Your task to perform on an android device: Open Chrome and go to settings Image 0: 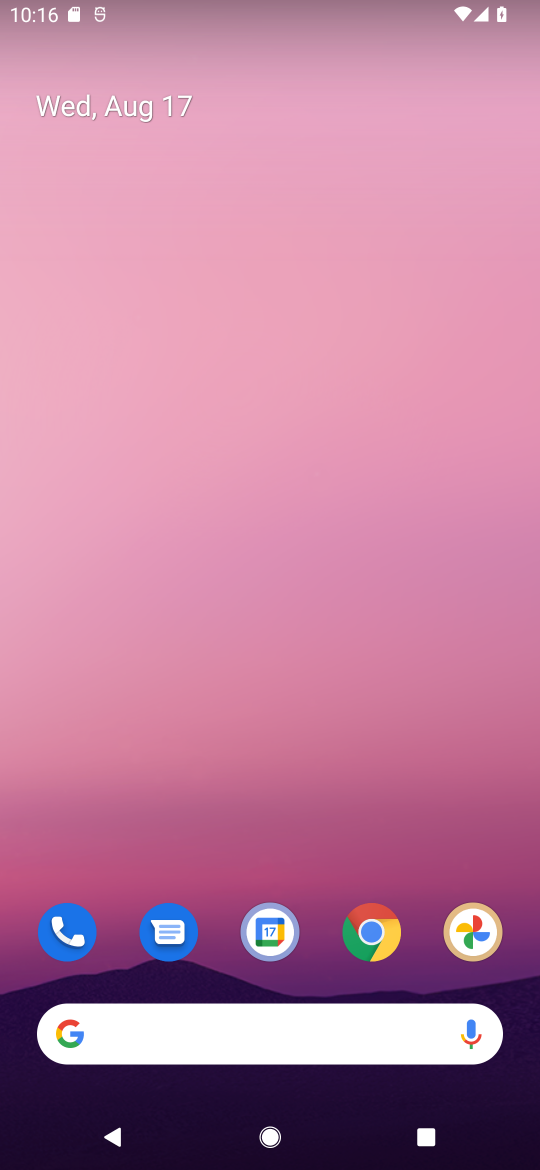
Step 0: click (379, 935)
Your task to perform on an android device: Open Chrome and go to settings Image 1: 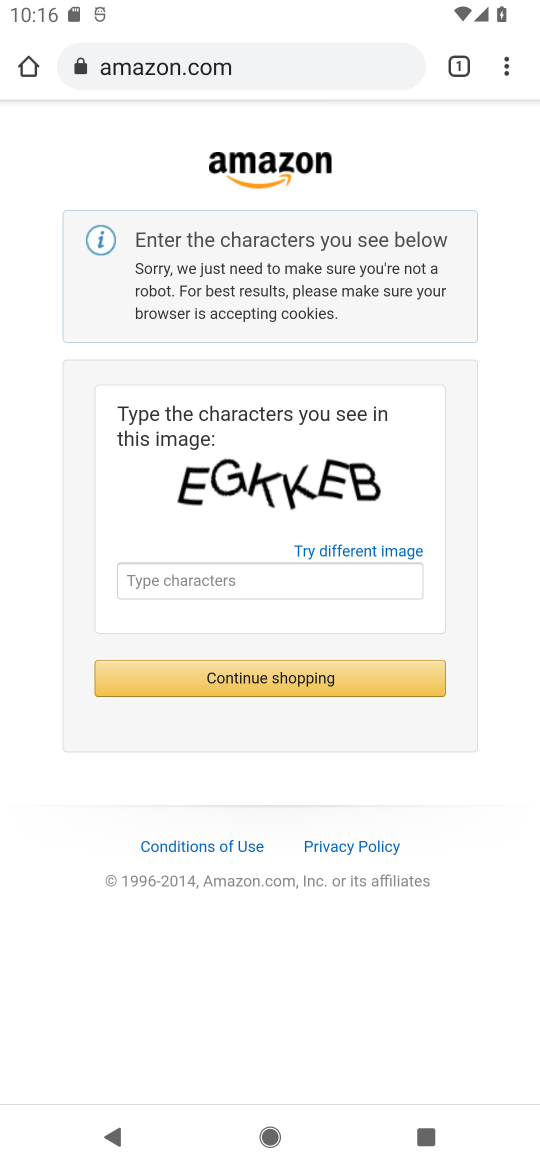
Step 1: click (506, 70)
Your task to perform on an android device: Open Chrome and go to settings Image 2: 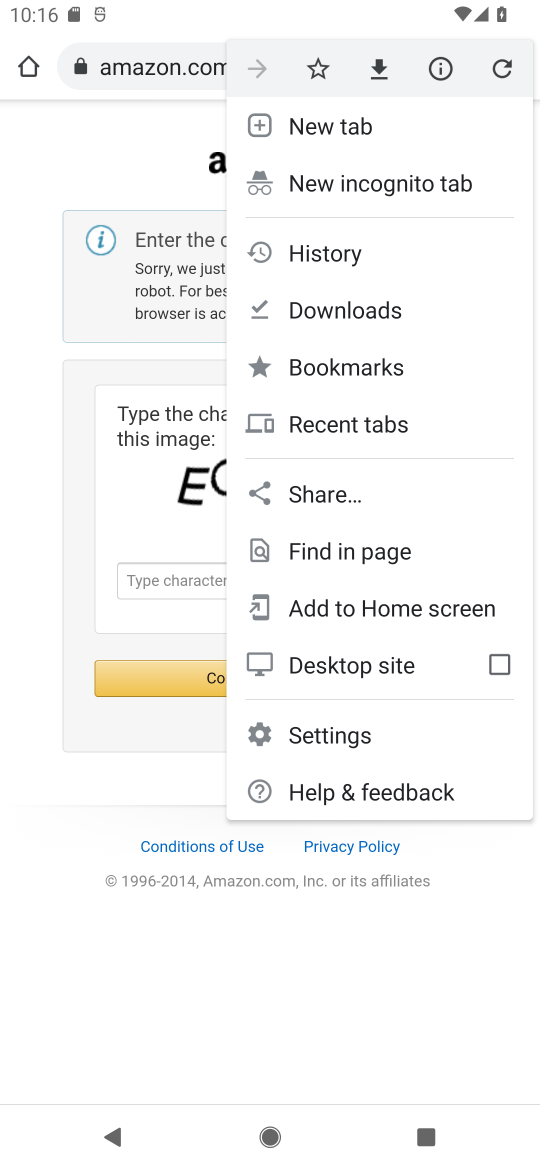
Step 2: click (313, 730)
Your task to perform on an android device: Open Chrome and go to settings Image 3: 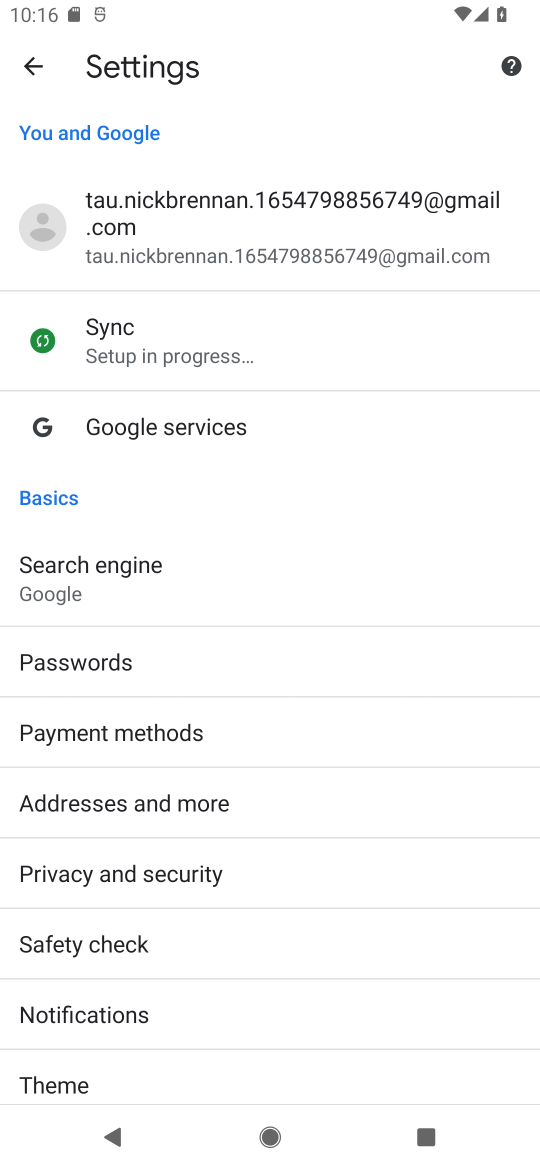
Step 3: task complete